Your task to perform on an android device: toggle improve location accuracy Image 0: 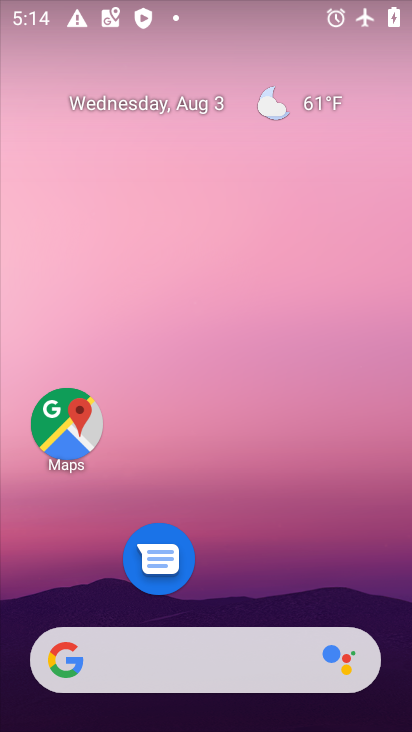
Step 0: drag from (179, 561) to (209, 129)
Your task to perform on an android device: toggle improve location accuracy Image 1: 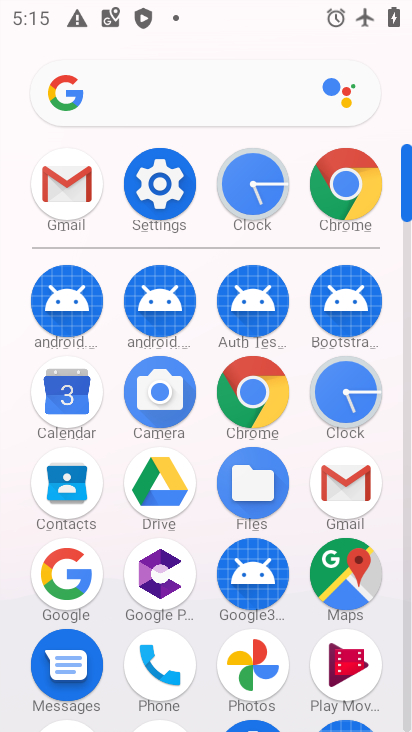
Step 1: click (143, 176)
Your task to perform on an android device: toggle improve location accuracy Image 2: 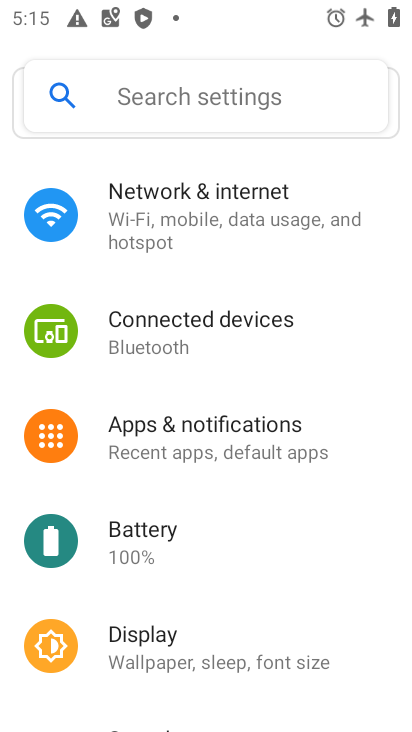
Step 2: drag from (205, 662) to (190, 321)
Your task to perform on an android device: toggle improve location accuracy Image 3: 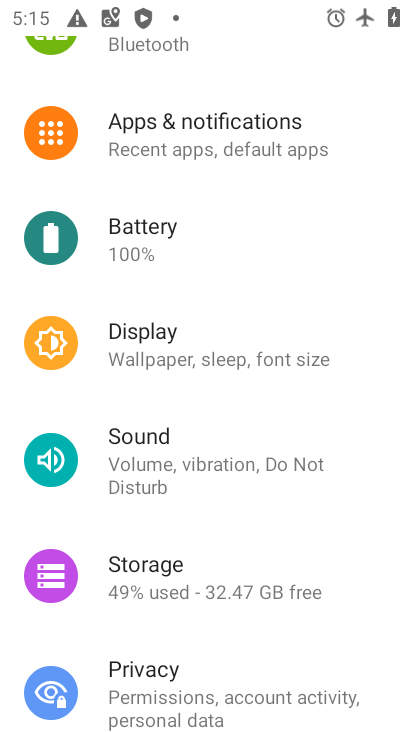
Step 3: drag from (189, 706) to (186, 379)
Your task to perform on an android device: toggle improve location accuracy Image 4: 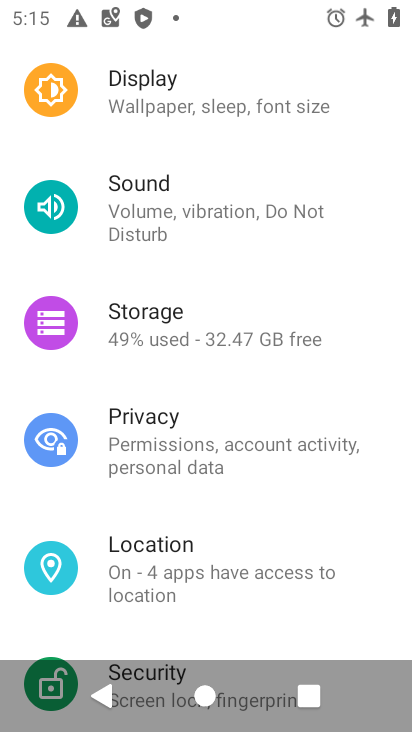
Step 4: click (156, 576)
Your task to perform on an android device: toggle improve location accuracy Image 5: 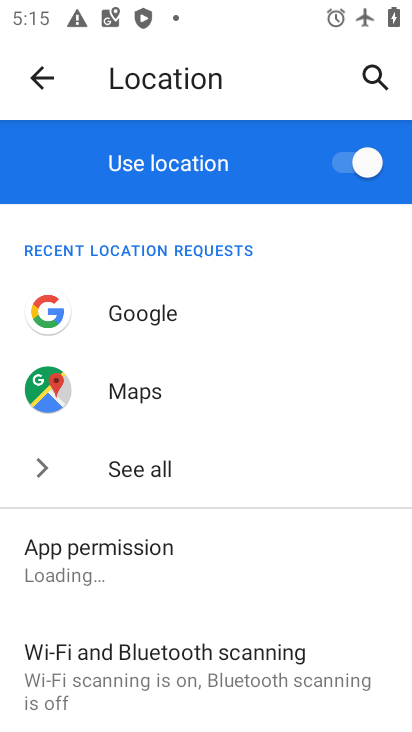
Step 5: drag from (101, 671) to (104, 294)
Your task to perform on an android device: toggle improve location accuracy Image 6: 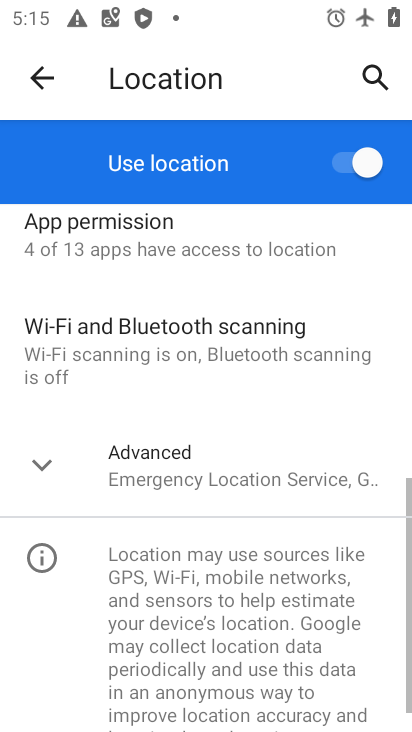
Step 6: click (126, 473)
Your task to perform on an android device: toggle improve location accuracy Image 7: 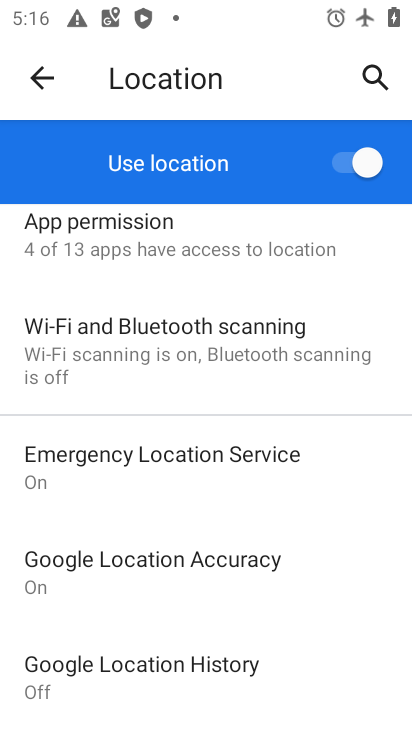
Step 7: click (165, 574)
Your task to perform on an android device: toggle improve location accuracy Image 8: 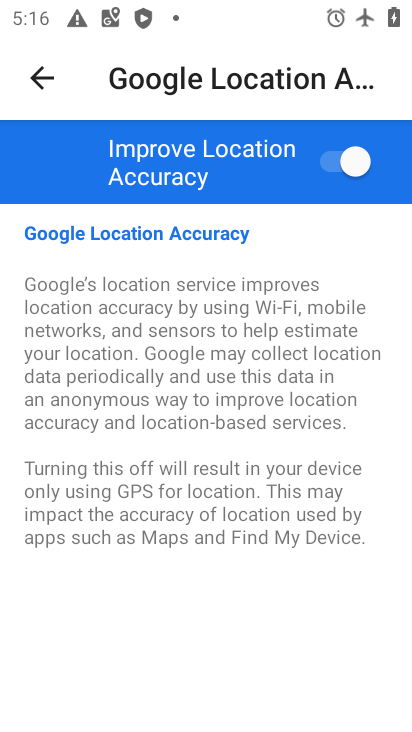
Step 8: click (327, 161)
Your task to perform on an android device: toggle improve location accuracy Image 9: 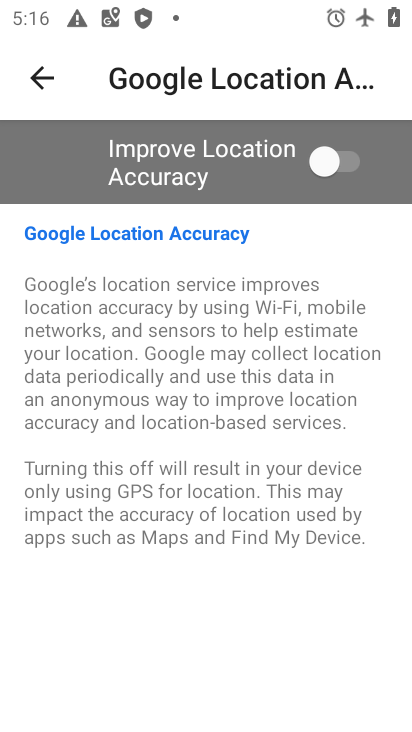
Step 9: task complete